Your task to perform on an android device: Go to CNN.com Image 0: 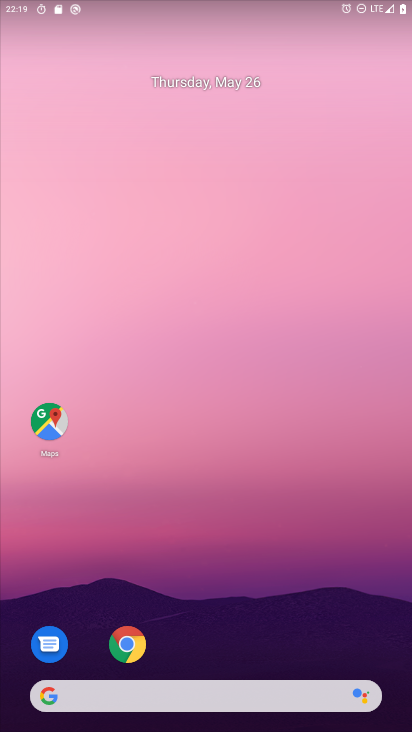
Step 0: drag from (144, 653) to (255, 230)
Your task to perform on an android device: Go to CNN.com Image 1: 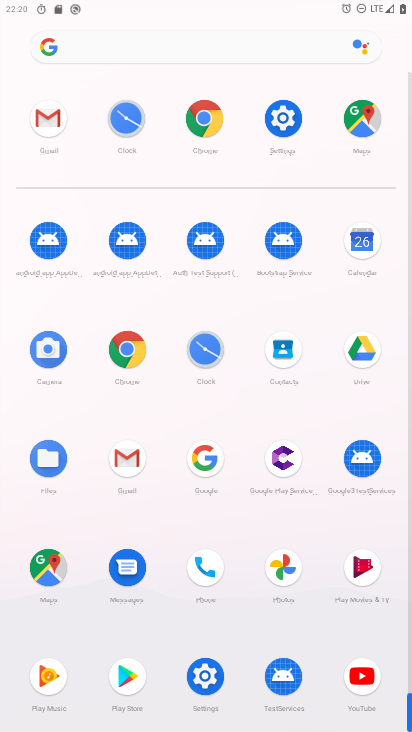
Step 1: click (129, 55)
Your task to perform on an android device: Go to CNN.com Image 2: 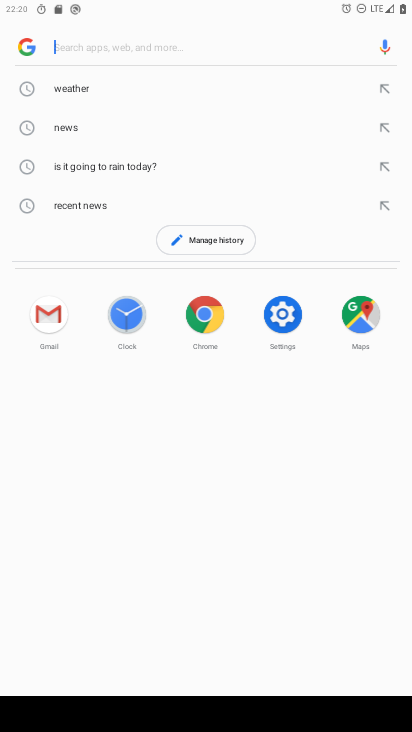
Step 2: type "CNN.com"
Your task to perform on an android device: Go to CNN.com Image 3: 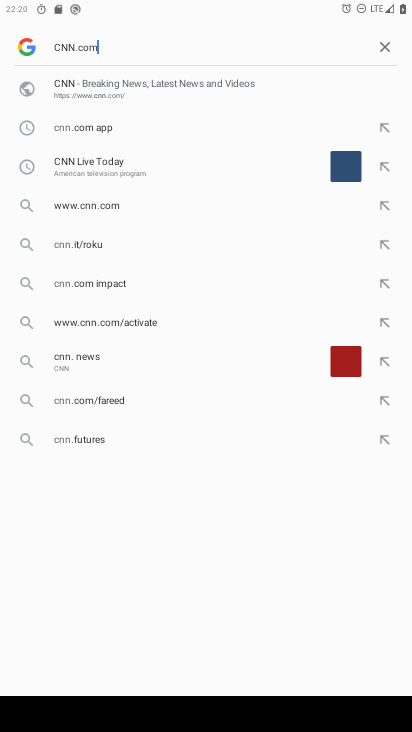
Step 3: type ""
Your task to perform on an android device: Go to CNN.com Image 4: 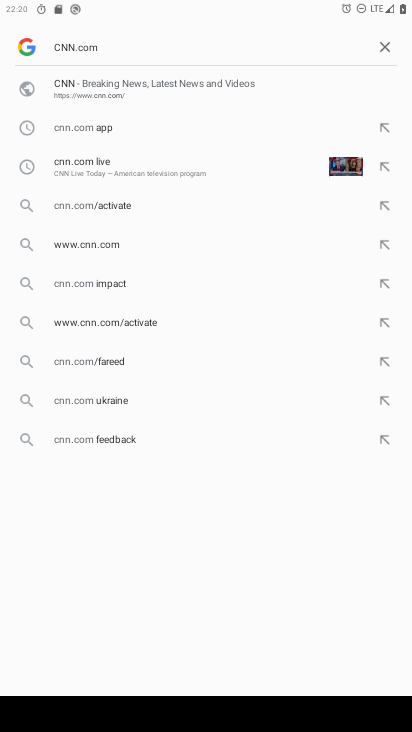
Step 4: click (83, 96)
Your task to perform on an android device: Go to CNN.com Image 5: 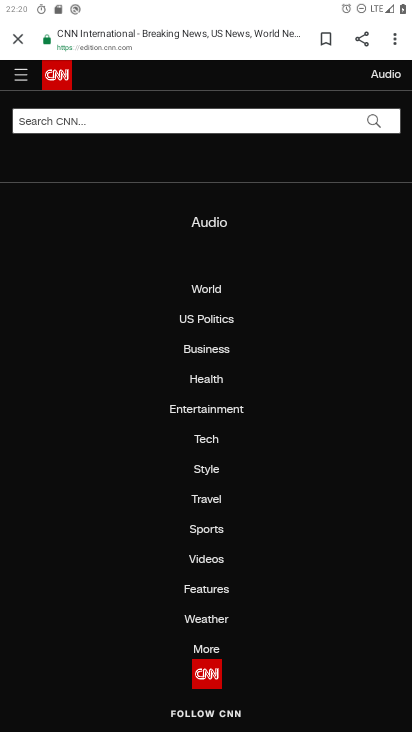
Step 5: task complete